Your task to perform on an android device: Find coffee shops on Maps Image 0: 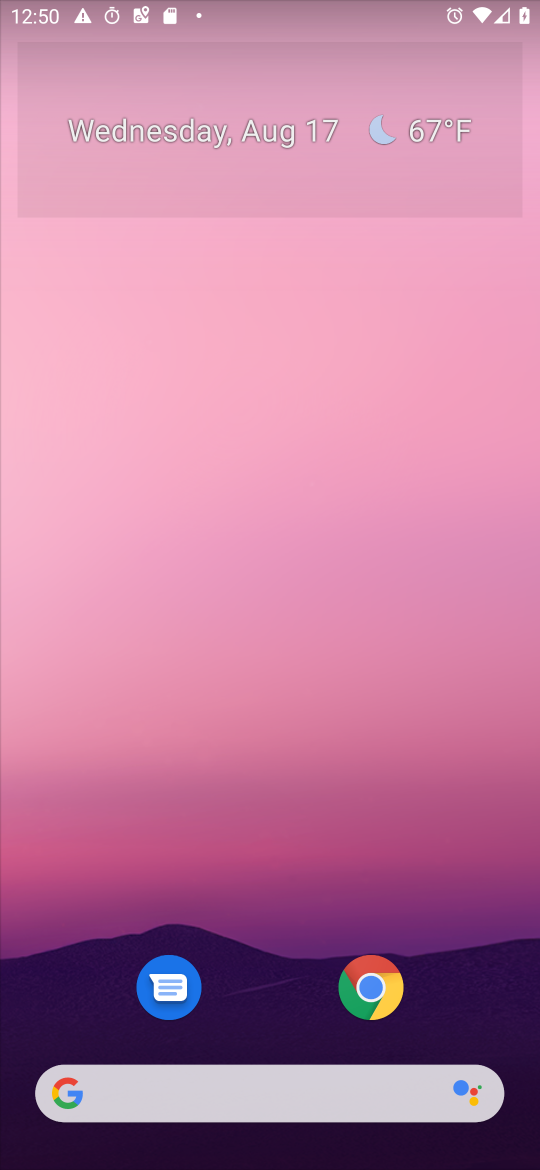
Step 0: drag from (21, 1140) to (317, 652)
Your task to perform on an android device: Find coffee shops on Maps Image 1: 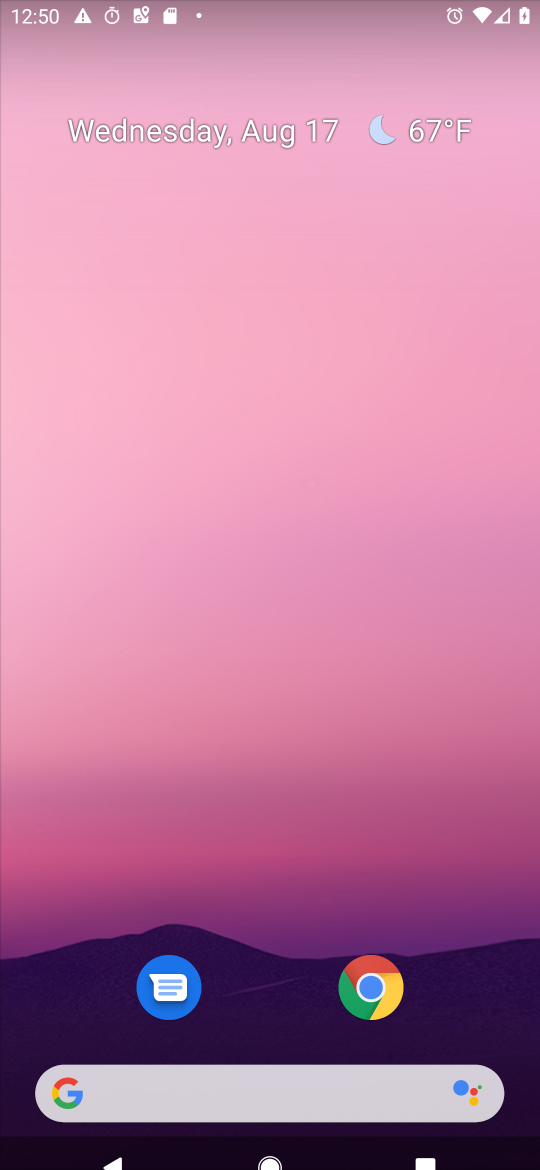
Step 1: drag from (1, 1139) to (282, 197)
Your task to perform on an android device: Find coffee shops on Maps Image 2: 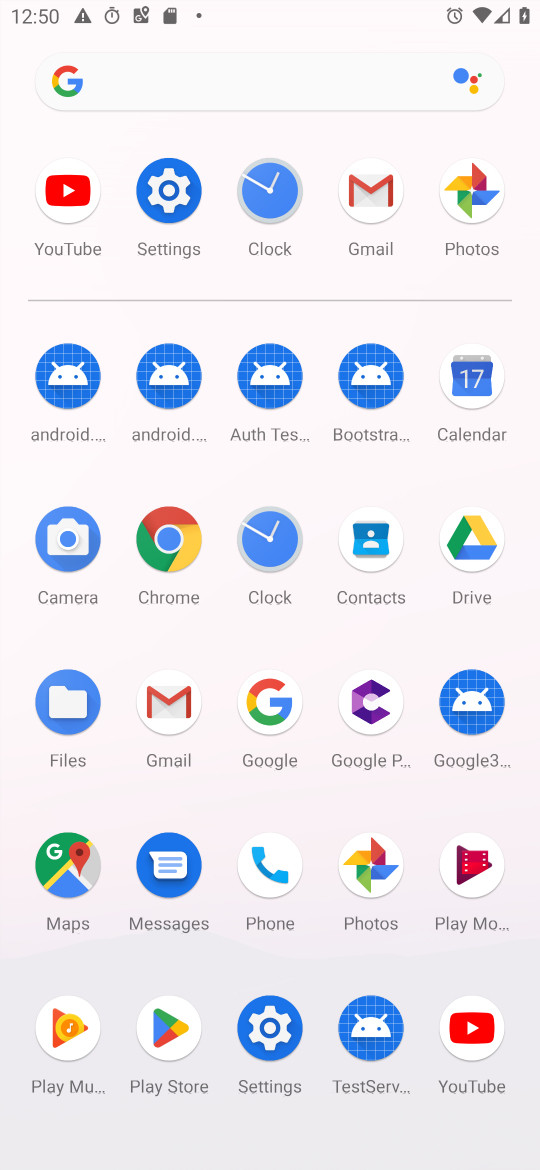
Step 2: click (67, 872)
Your task to perform on an android device: Find coffee shops on Maps Image 3: 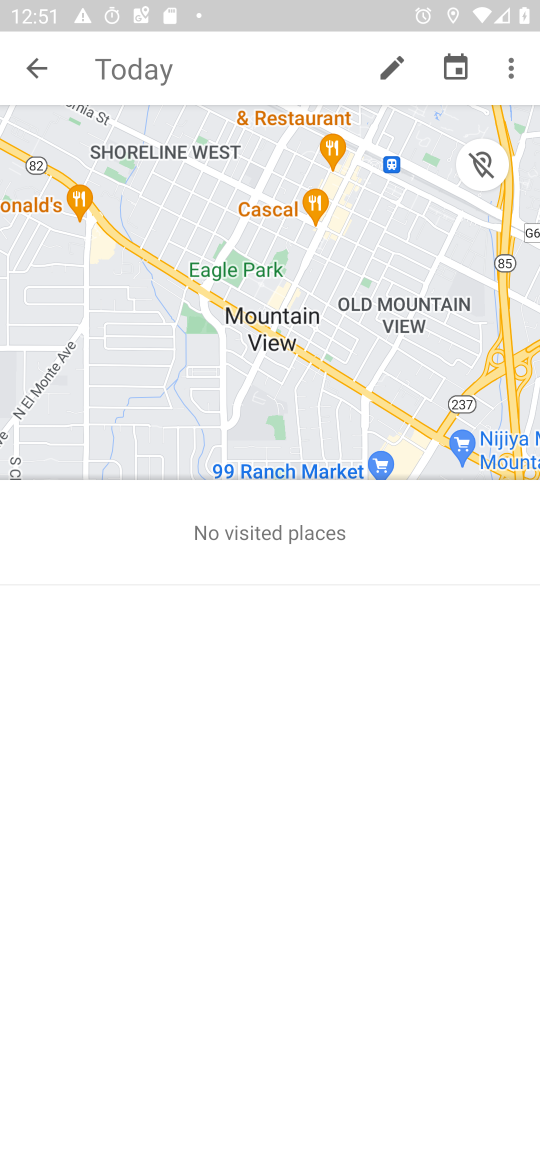
Step 3: click (42, 76)
Your task to perform on an android device: Find coffee shops on Maps Image 4: 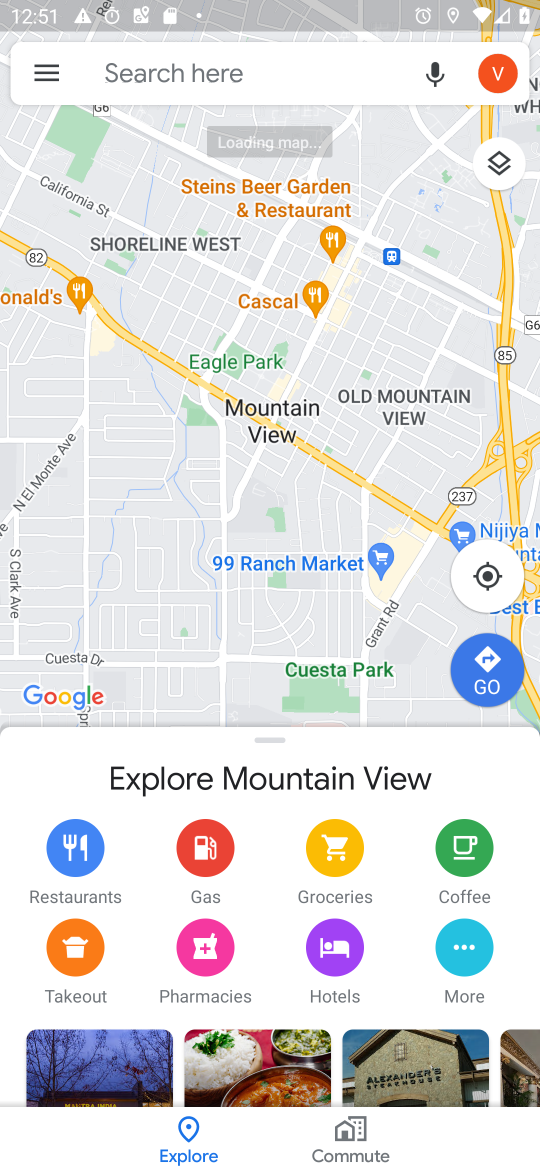
Step 4: click (129, 56)
Your task to perform on an android device: Find coffee shops on Maps Image 5: 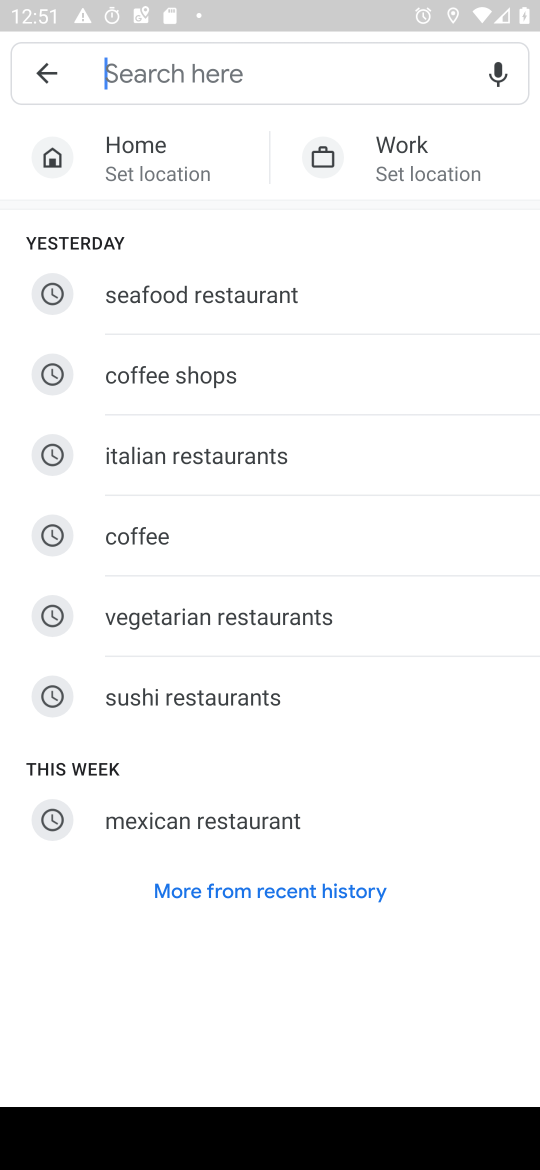
Step 5: click (185, 385)
Your task to perform on an android device: Find coffee shops on Maps Image 6: 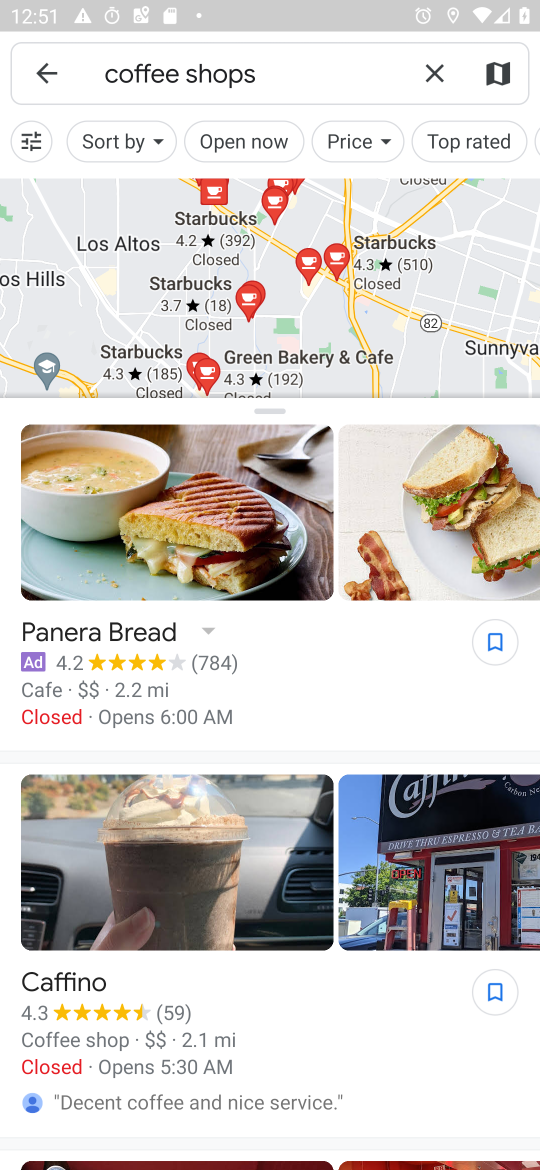
Step 6: task complete